Your task to perform on an android device: turn off location history Image 0: 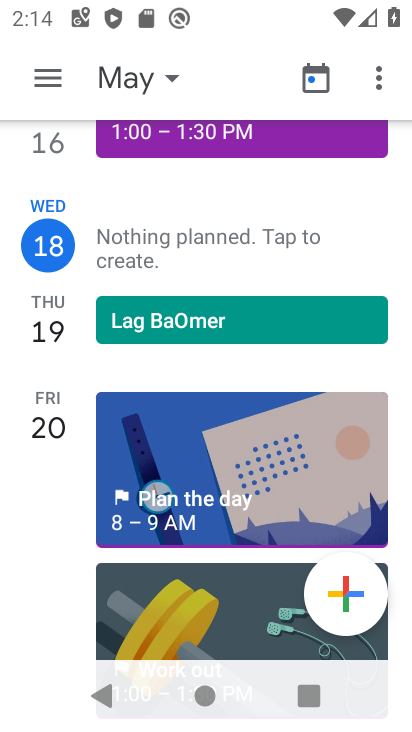
Step 0: press home button
Your task to perform on an android device: turn off location history Image 1: 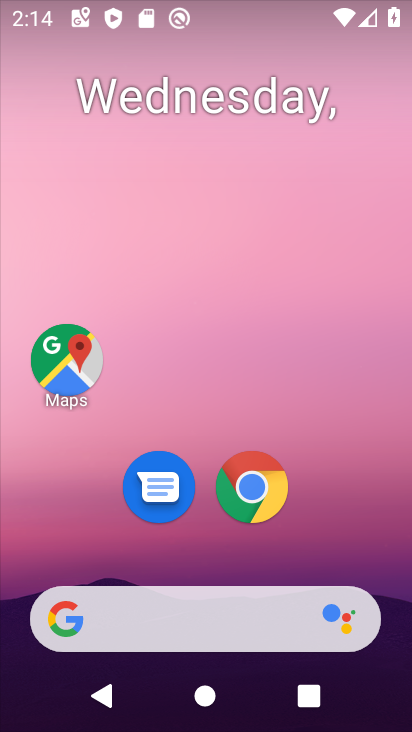
Step 1: drag from (325, 525) to (179, 125)
Your task to perform on an android device: turn off location history Image 2: 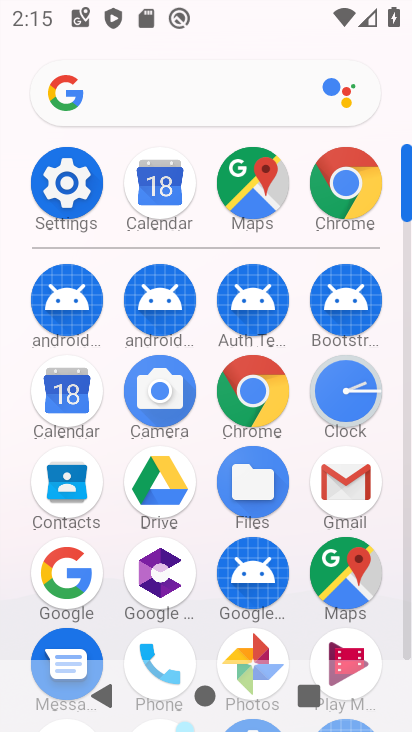
Step 2: click (70, 179)
Your task to perform on an android device: turn off location history Image 3: 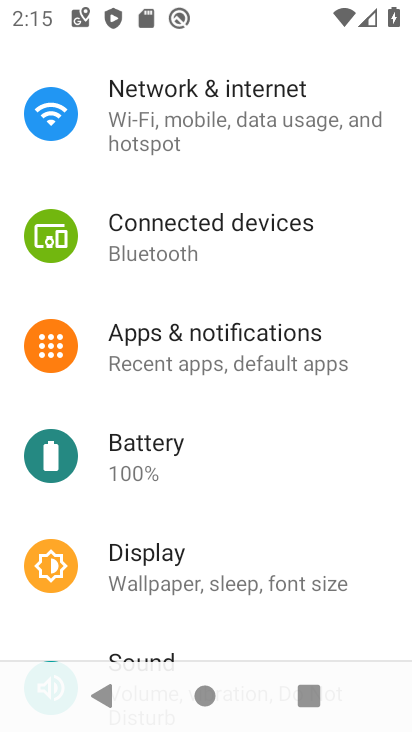
Step 3: drag from (212, 415) to (199, 33)
Your task to perform on an android device: turn off location history Image 4: 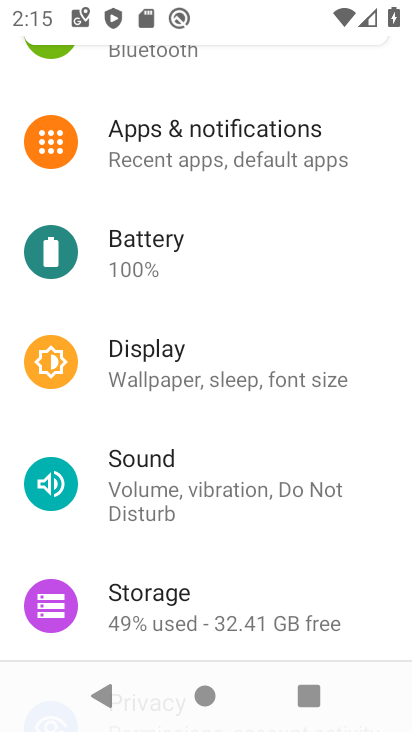
Step 4: drag from (297, 557) to (231, 134)
Your task to perform on an android device: turn off location history Image 5: 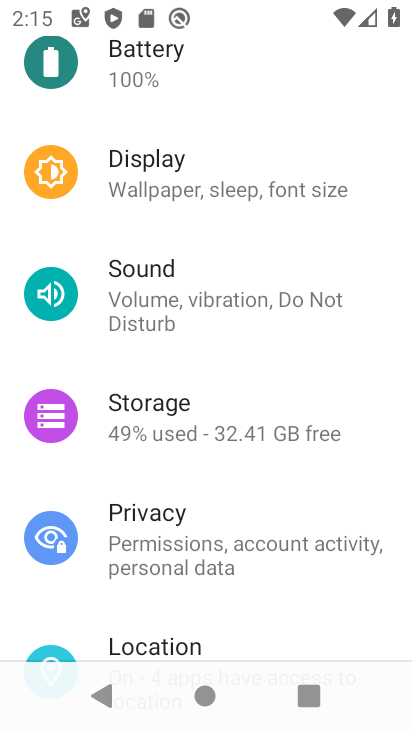
Step 5: click (162, 639)
Your task to perform on an android device: turn off location history Image 6: 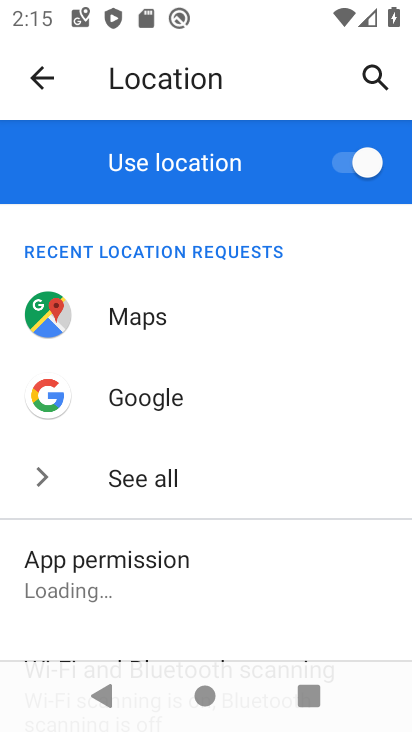
Step 6: click (357, 161)
Your task to perform on an android device: turn off location history Image 7: 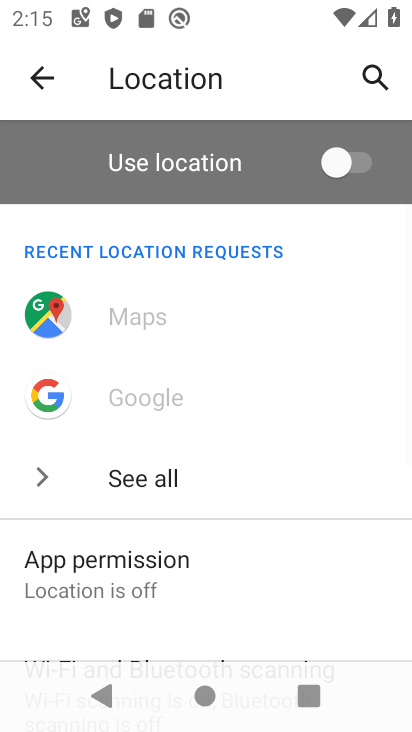
Step 7: task complete